Your task to perform on an android device: Go to network settings Image 0: 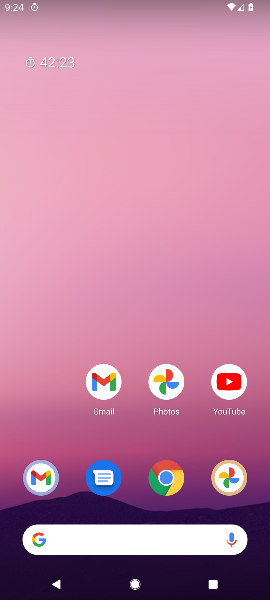
Step 0: press home button
Your task to perform on an android device: Go to network settings Image 1: 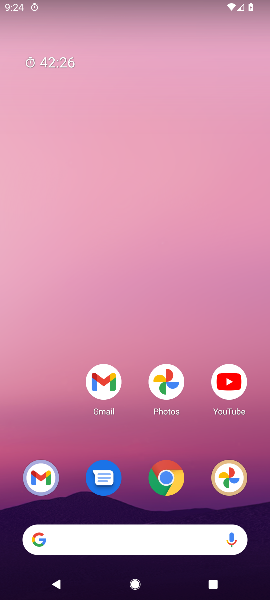
Step 1: drag from (57, 421) to (15, 1)
Your task to perform on an android device: Go to network settings Image 2: 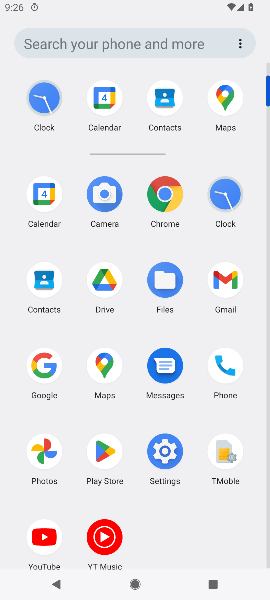
Step 2: click (176, 454)
Your task to perform on an android device: Go to network settings Image 3: 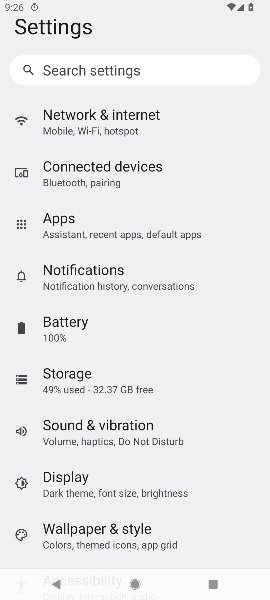
Step 3: click (17, 131)
Your task to perform on an android device: Go to network settings Image 4: 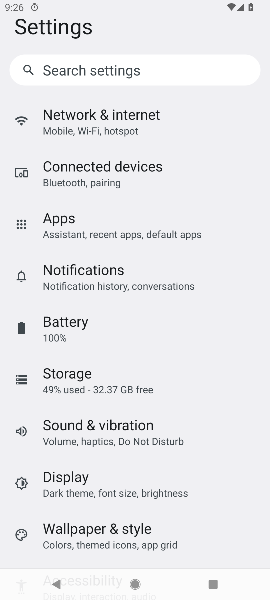
Step 4: task complete